Your task to perform on an android device: See recent photos Image 0: 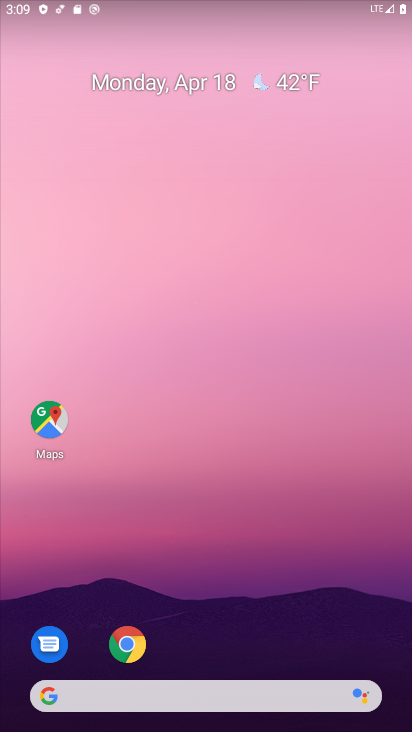
Step 0: drag from (201, 678) to (232, 277)
Your task to perform on an android device: See recent photos Image 1: 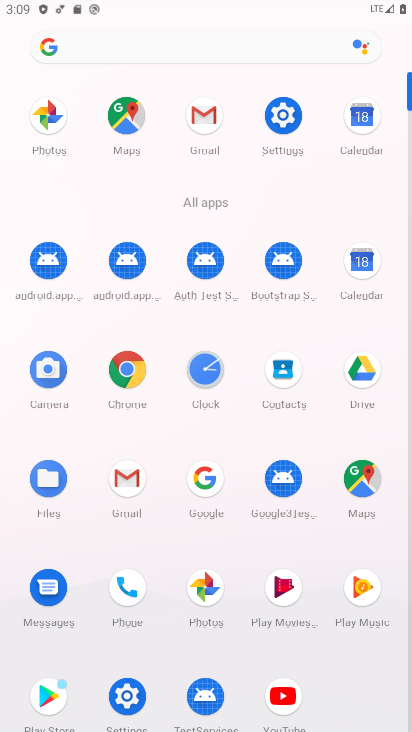
Step 1: click (46, 112)
Your task to perform on an android device: See recent photos Image 2: 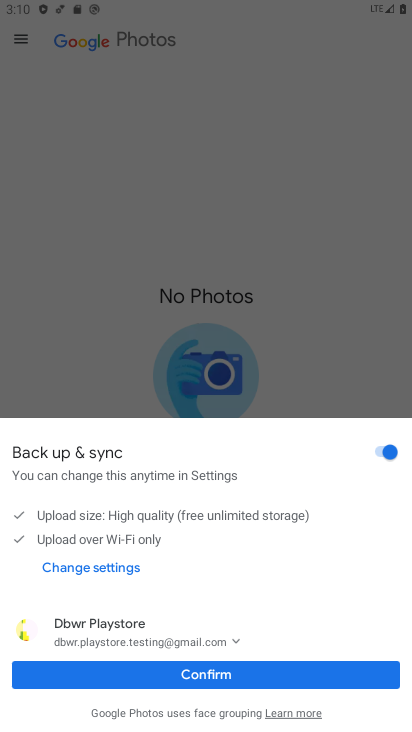
Step 2: click (212, 676)
Your task to perform on an android device: See recent photos Image 3: 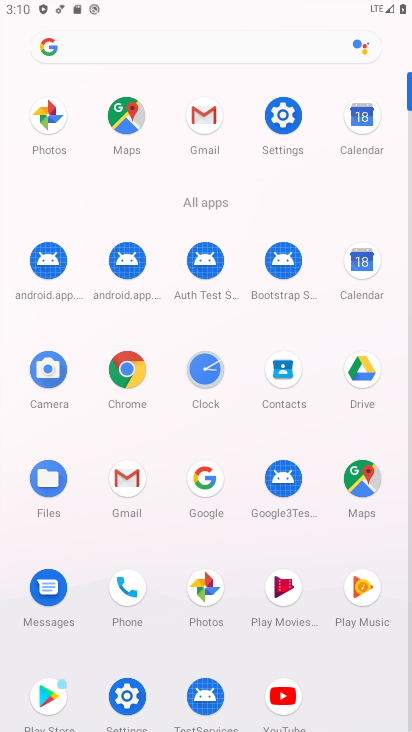
Step 3: click (40, 116)
Your task to perform on an android device: See recent photos Image 4: 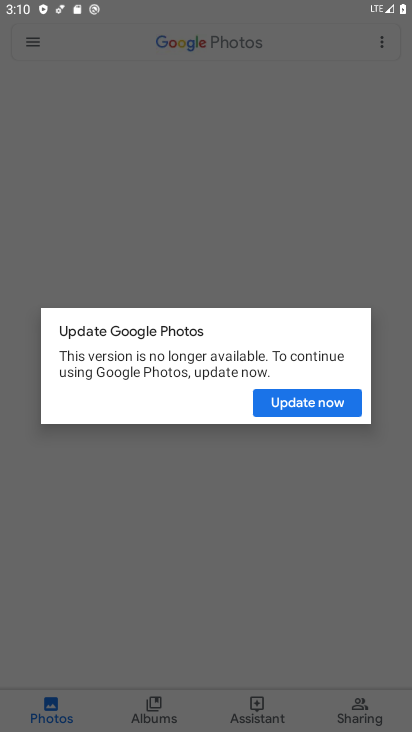
Step 4: click (336, 396)
Your task to perform on an android device: See recent photos Image 5: 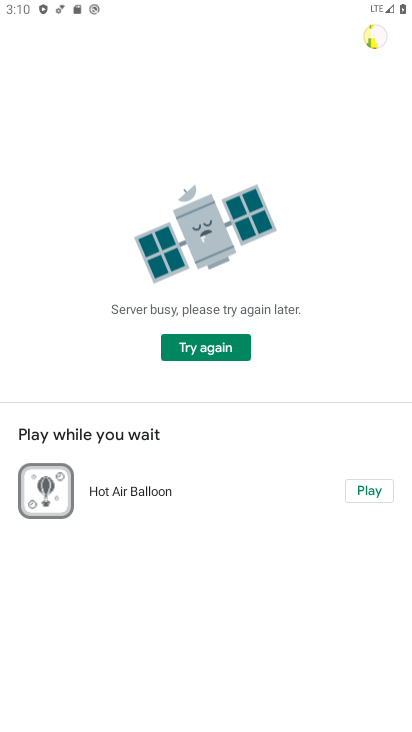
Step 5: task complete